Your task to perform on an android device: Add "logitech g pro" to the cart on bestbuy Image 0: 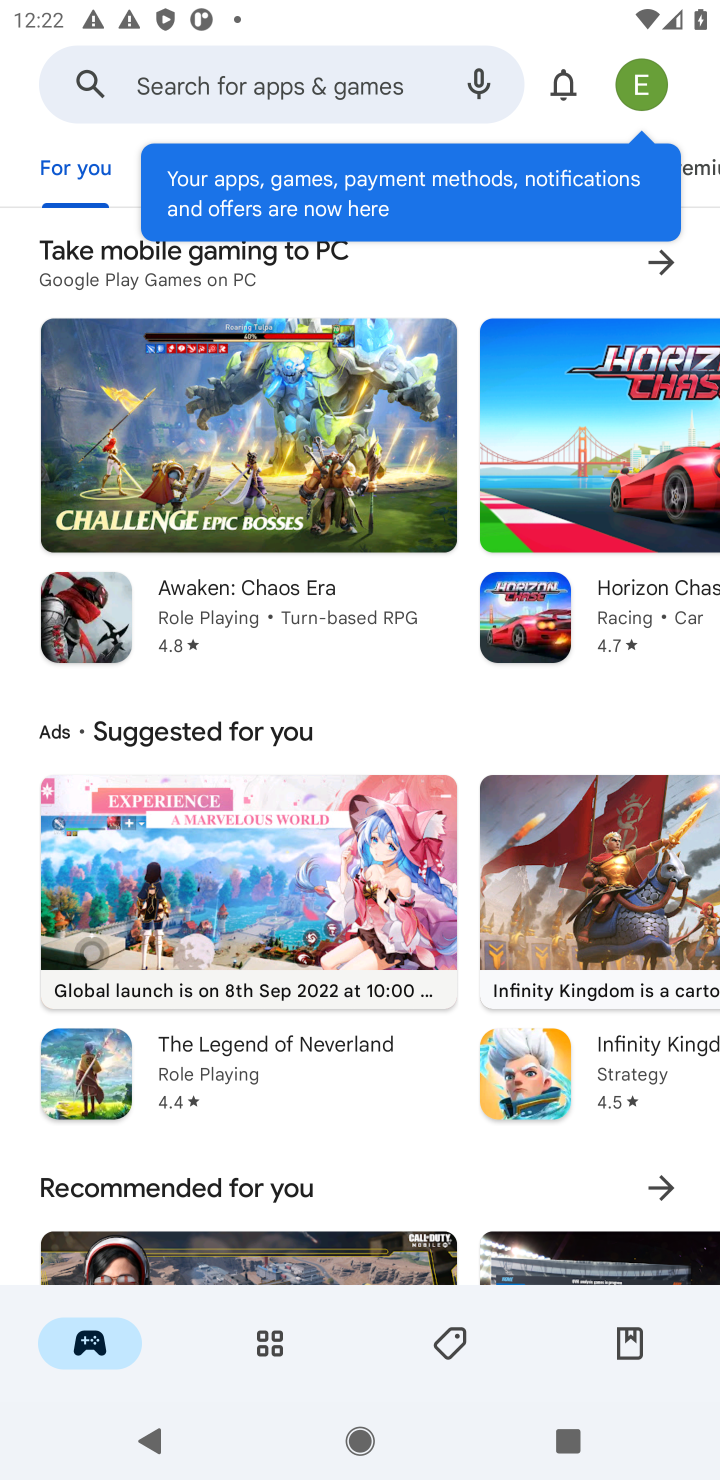
Step 0: press home button
Your task to perform on an android device: Add "logitech g pro" to the cart on bestbuy Image 1: 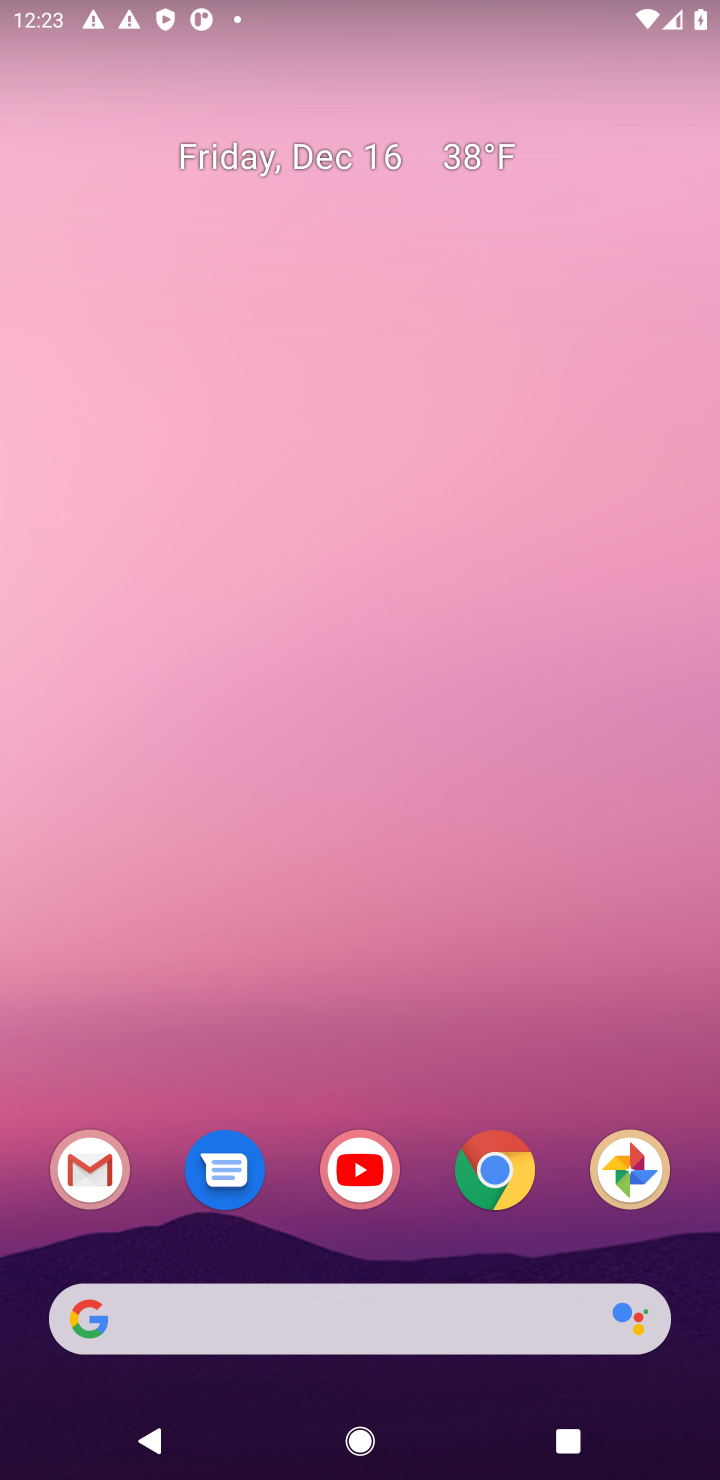
Step 1: click (484, 1163)
Your task to perform on an android device: Add "logitech g pro" to the cart on bestbuy Image 2: 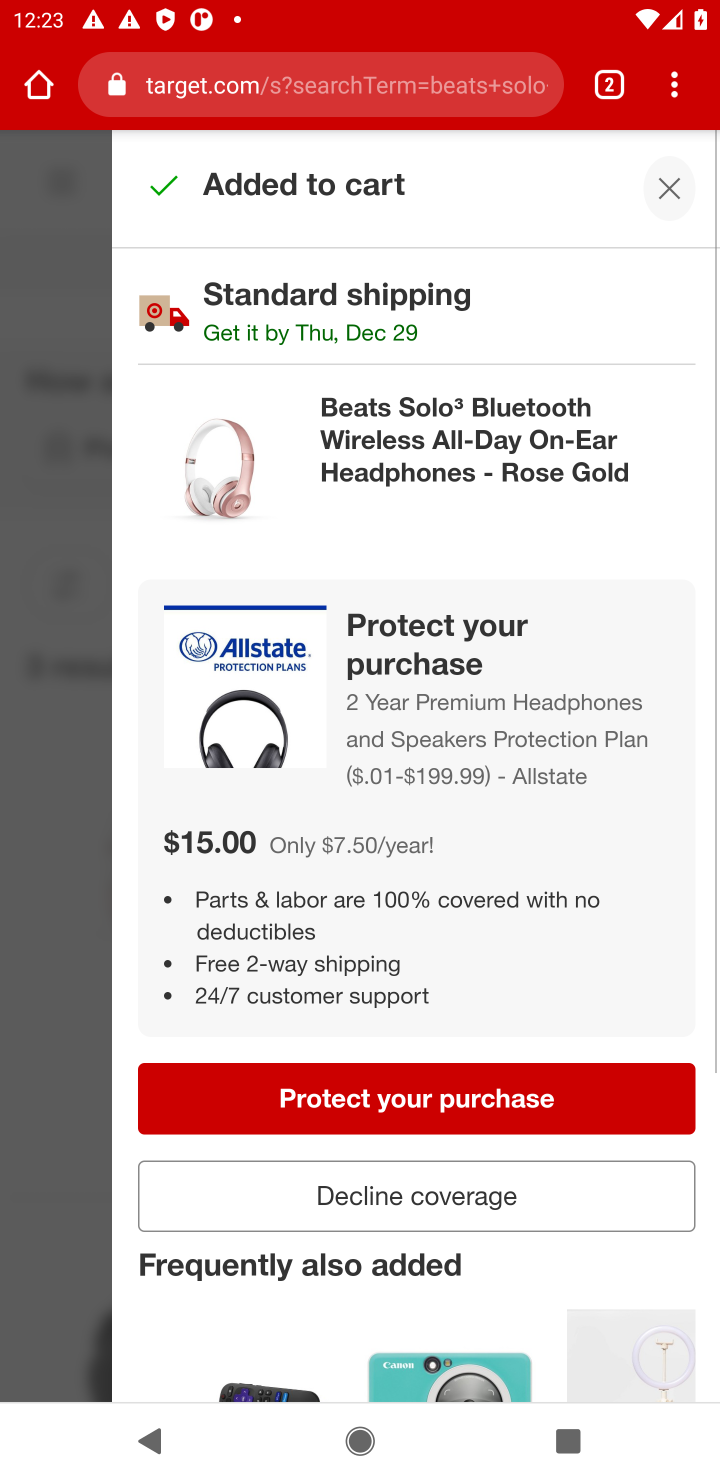
Step 2: click (291, 87)
Your task to perform on an android device: Add "logitech g pro" to the cart on bestbuy Image 3: 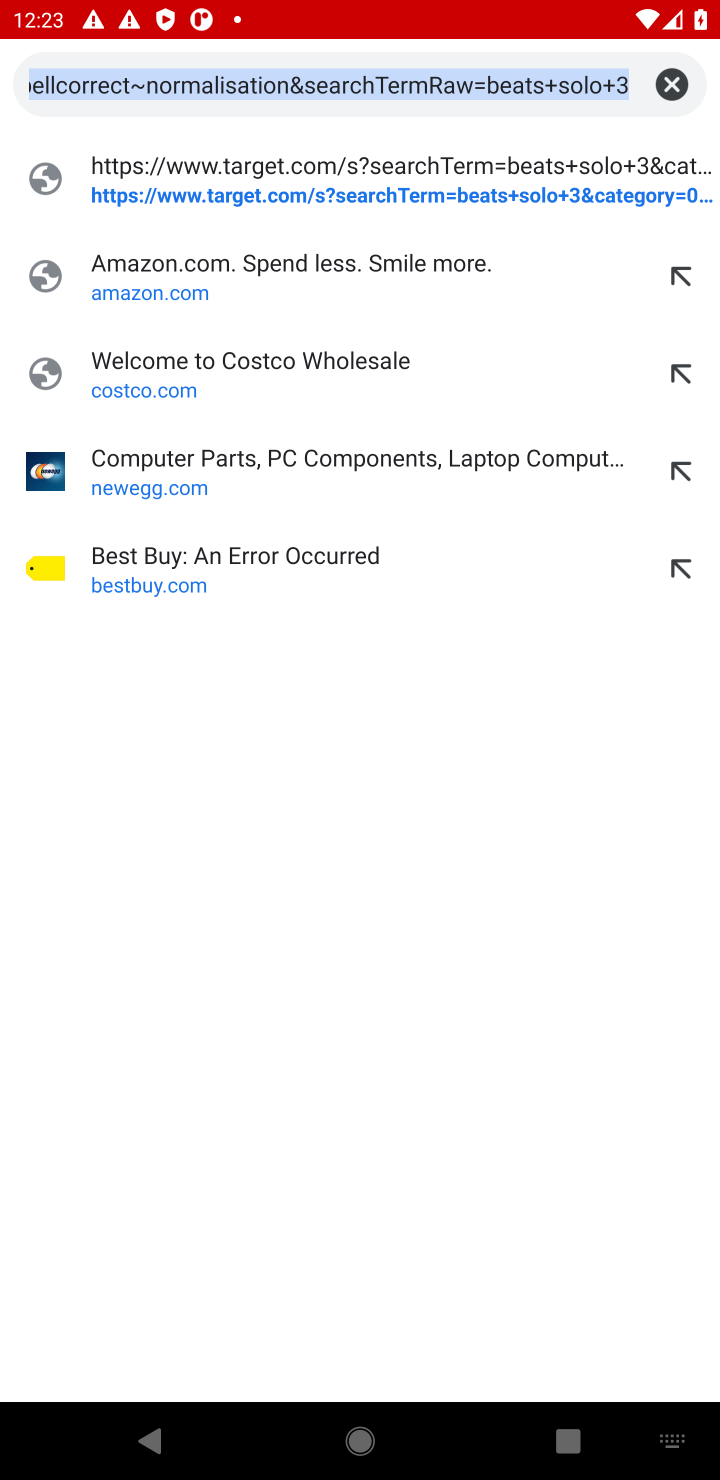
Step 3: click (116, 582)
Your task to perform on an android device: Add "logitech g pro" to the cart on bestbuy Image 4: 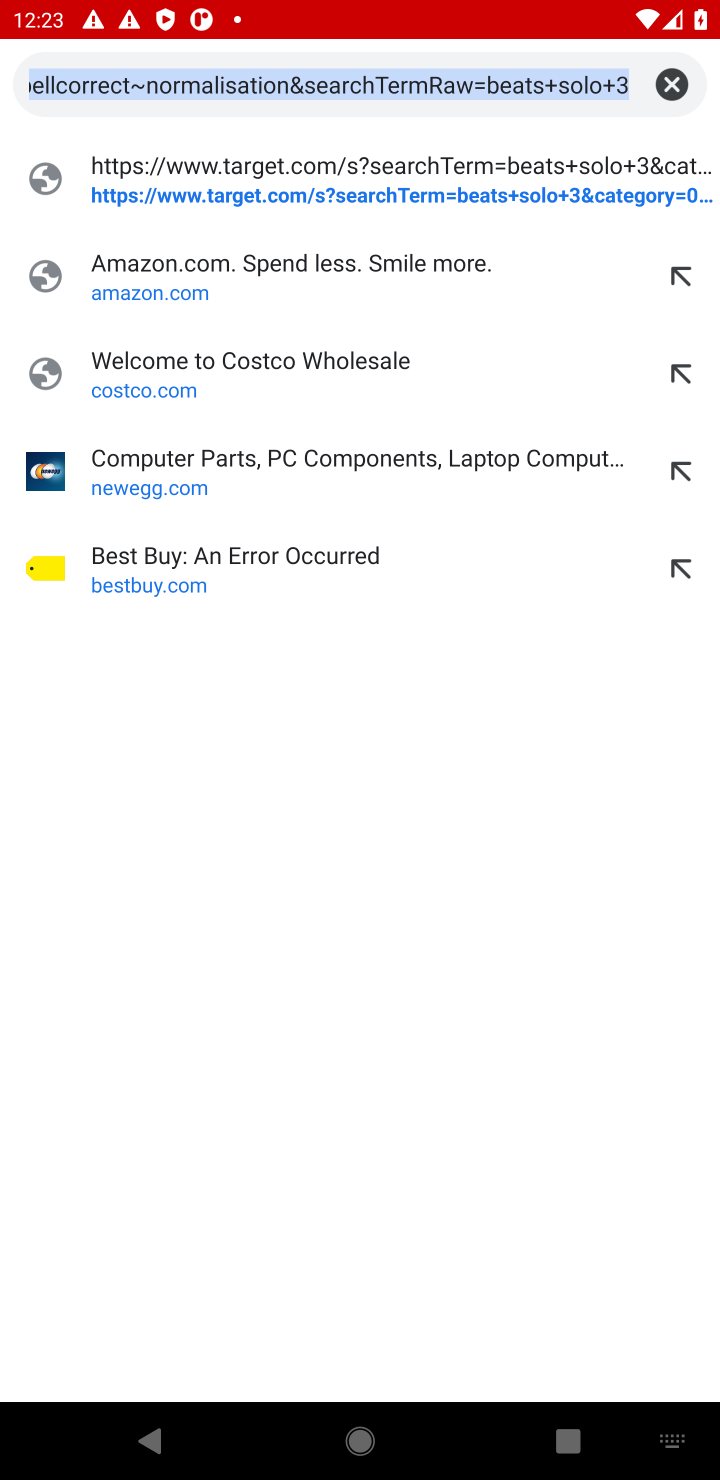
Step 4: click (145, 563)
Your task to perform on an android device: Add "logitech g pro" to the cart on bestbuy Image 5: 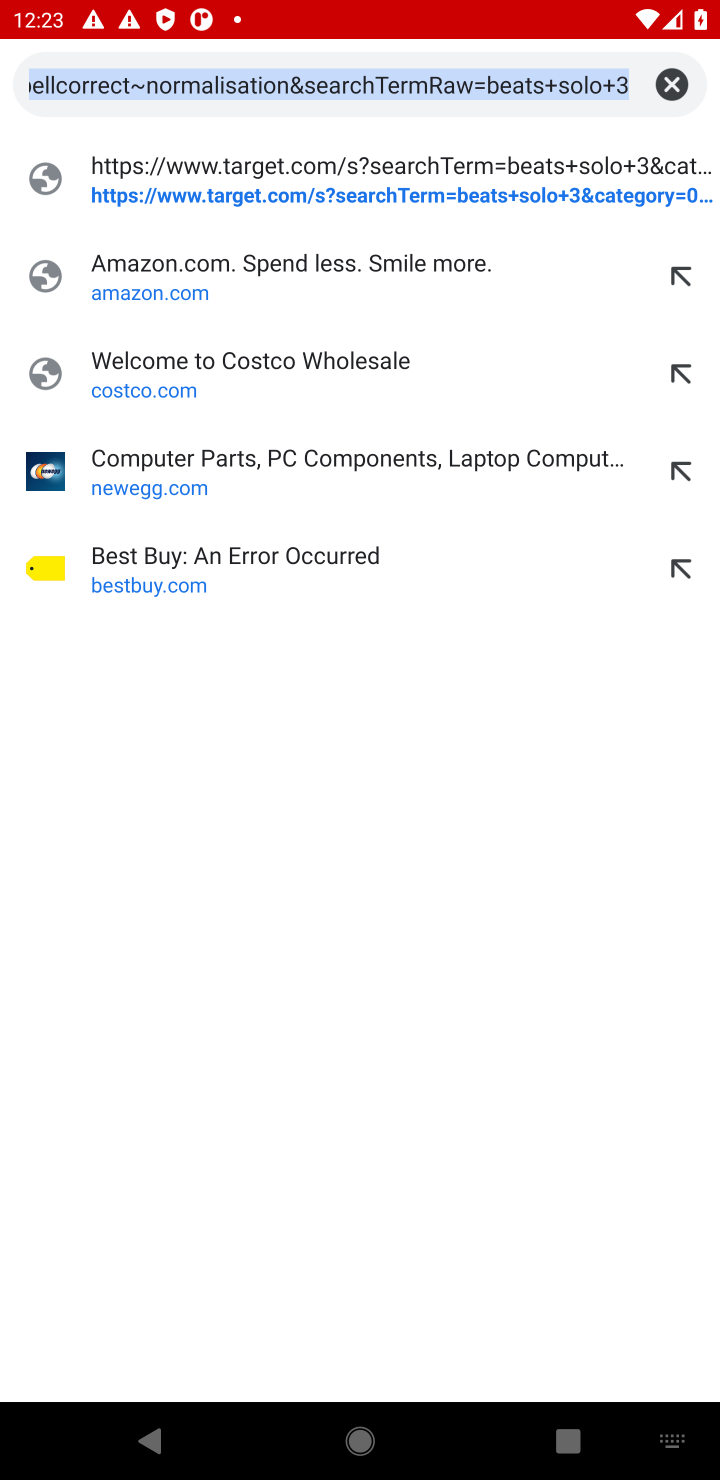
Step 5: click (174, 85)
Your task to perform on an android device: Add "logitech g pro" to the cart on bestbuy Image 6: 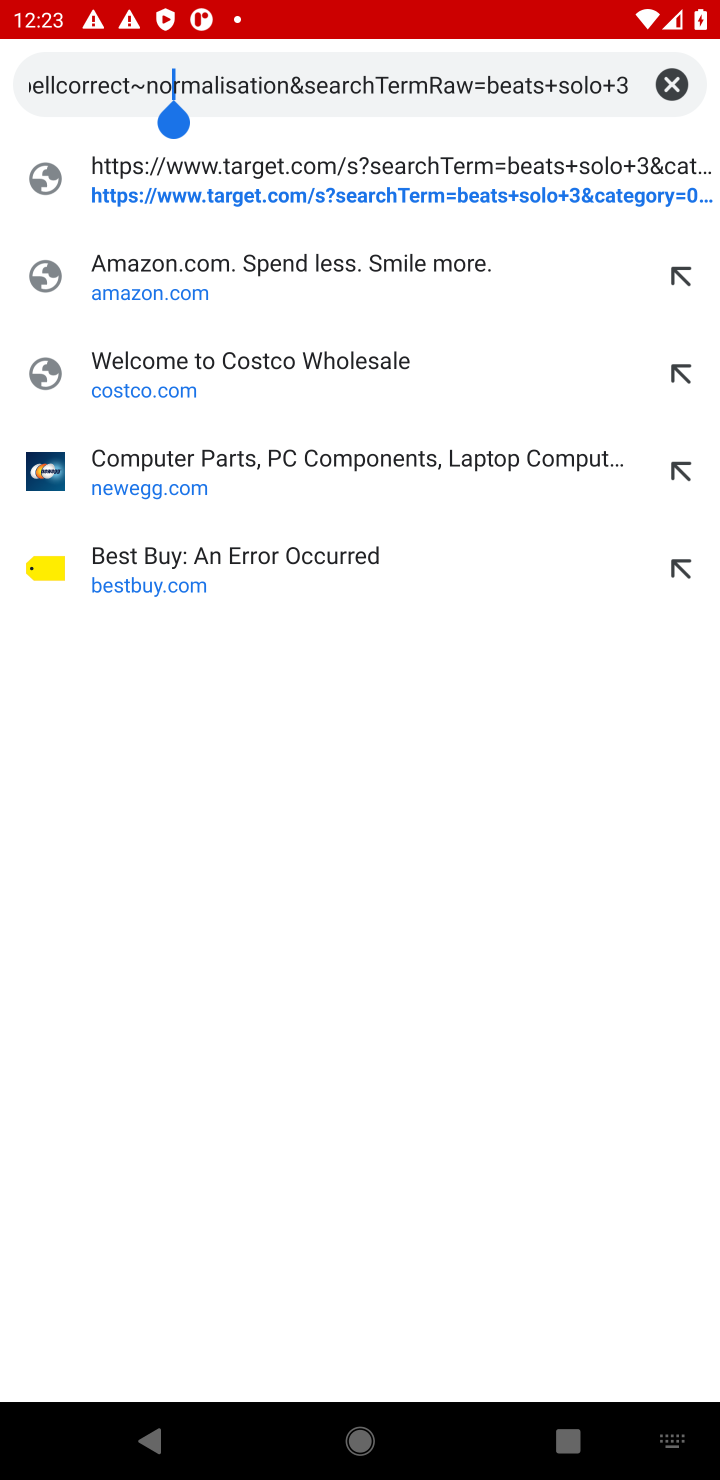
Step 6: click (680, 77)
Your task to perform on an android device: Add "logitech g pro" to the cart on bestbuy Image 7: 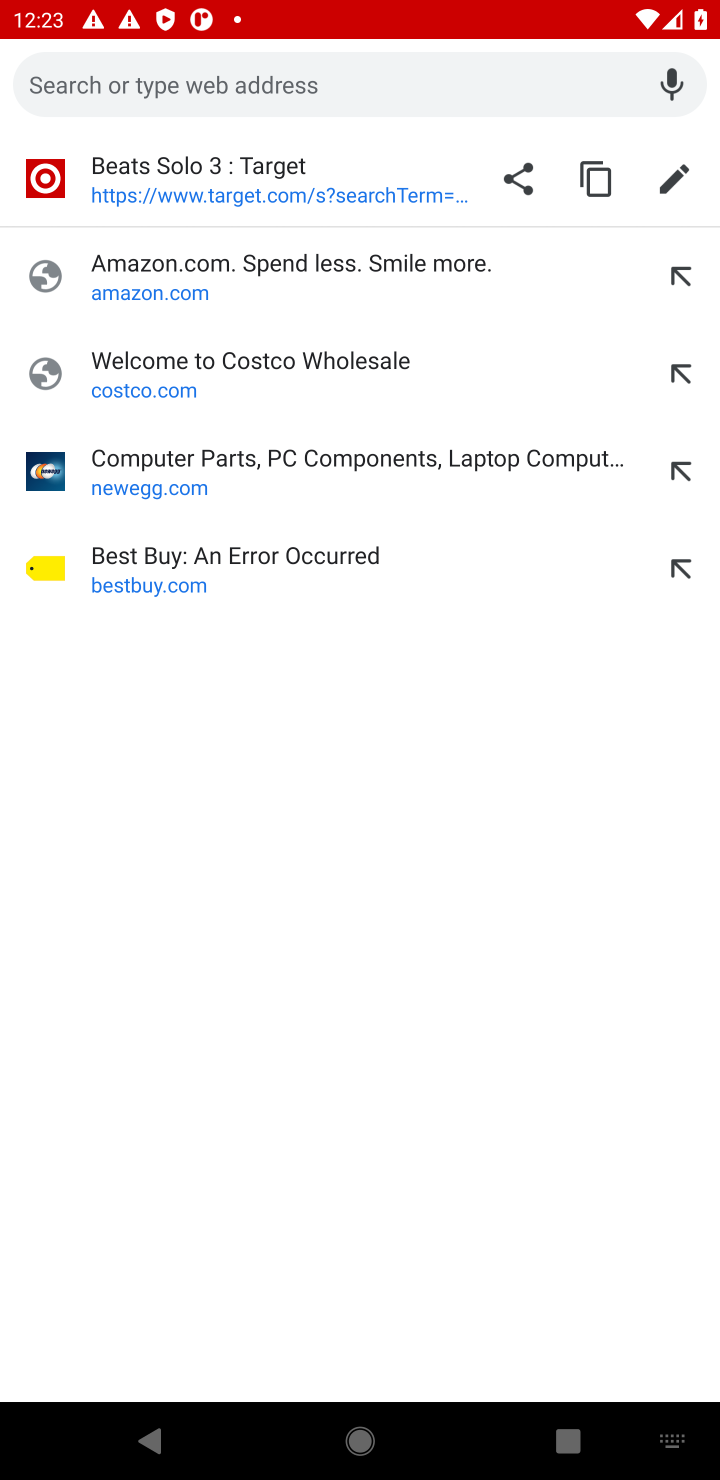
Step 7: type "bestbuy.com"
Your task to perform on an android device: Add "logitech g pro" to the cart on bestbuy Image 8: 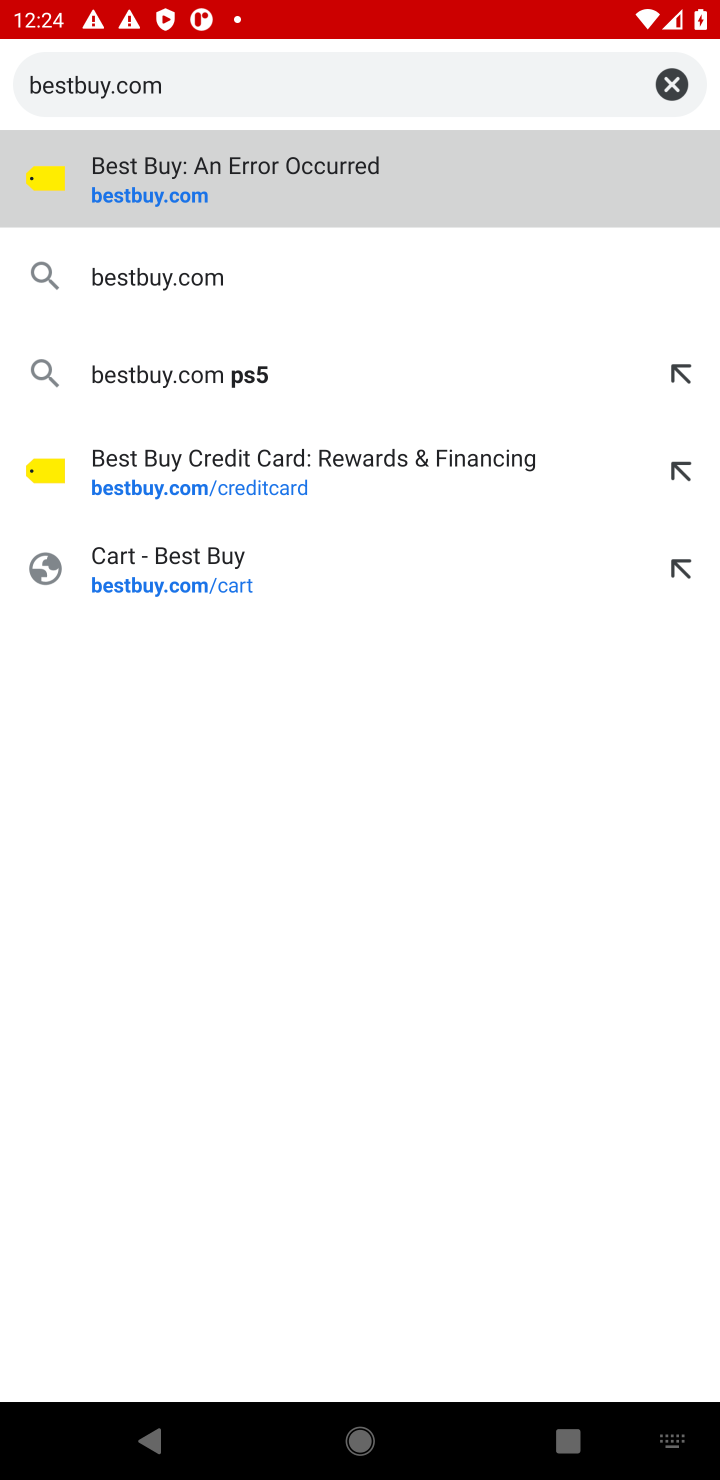
Step 8: click (162, 474)
Your task to perform on an android device: Add "logitech g pro" to the cart on bestbuy Image 9: 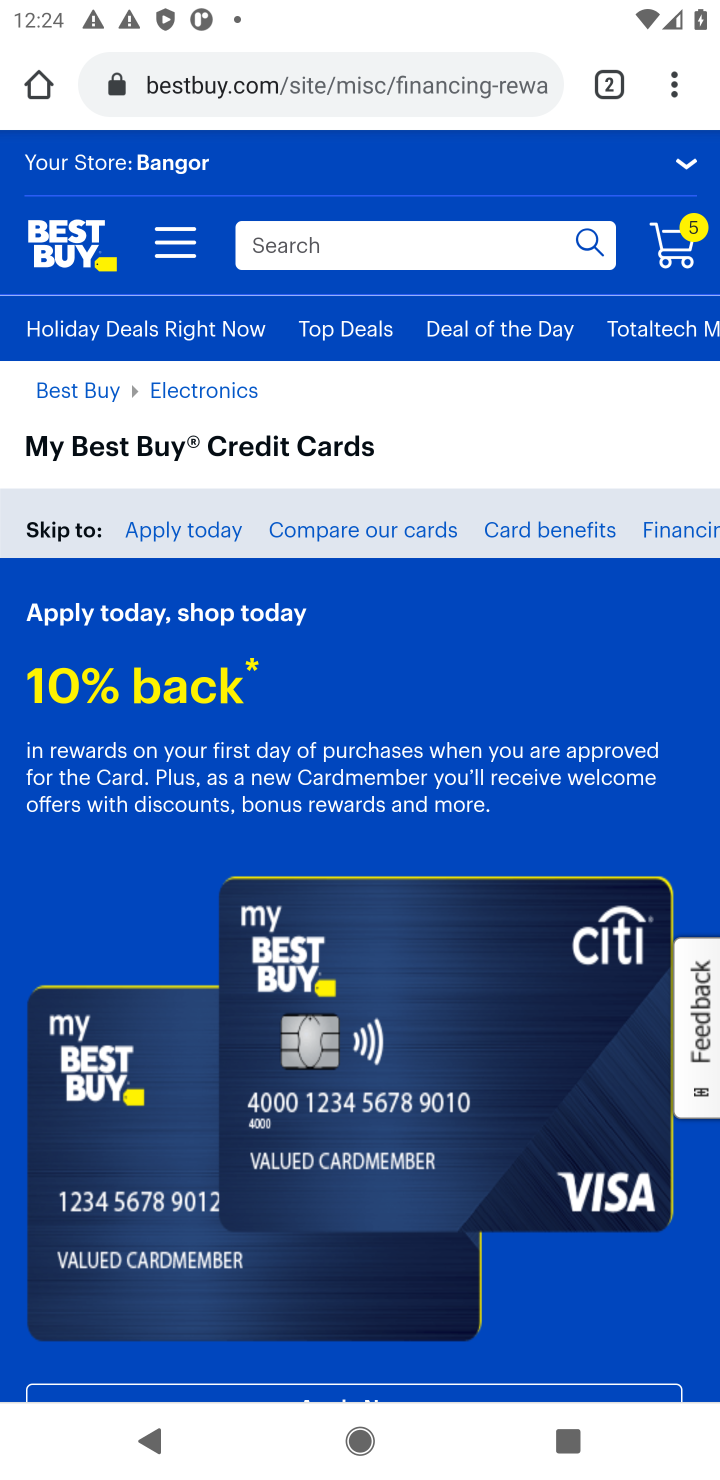
Step 9: click (356, 234)
Your task to perform on an android device: Add "logitech g pro" to the cart on bestbuy Image 10: 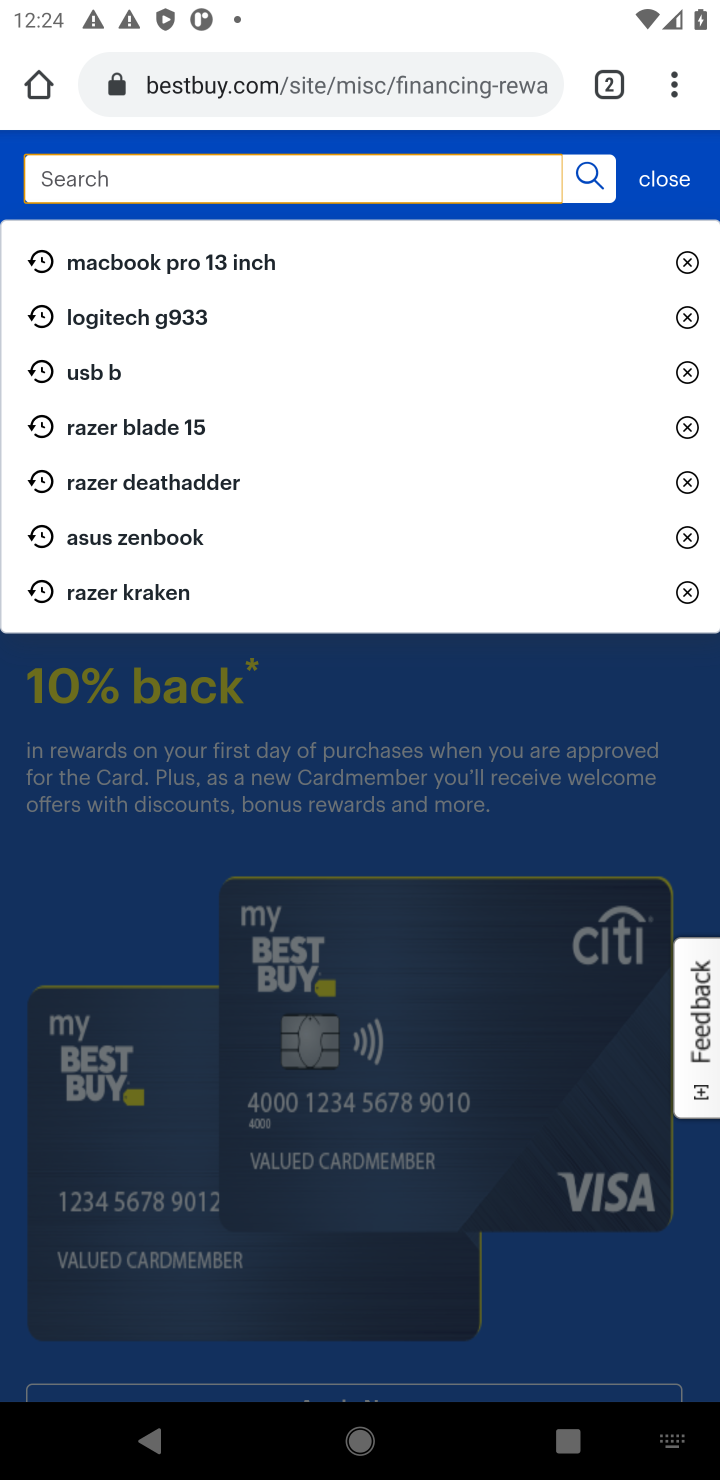
Step 10: type "logitech g pro"
Your task to perform on an android device: Add "logitech g pro" to the cart on bestbuy Image 11: 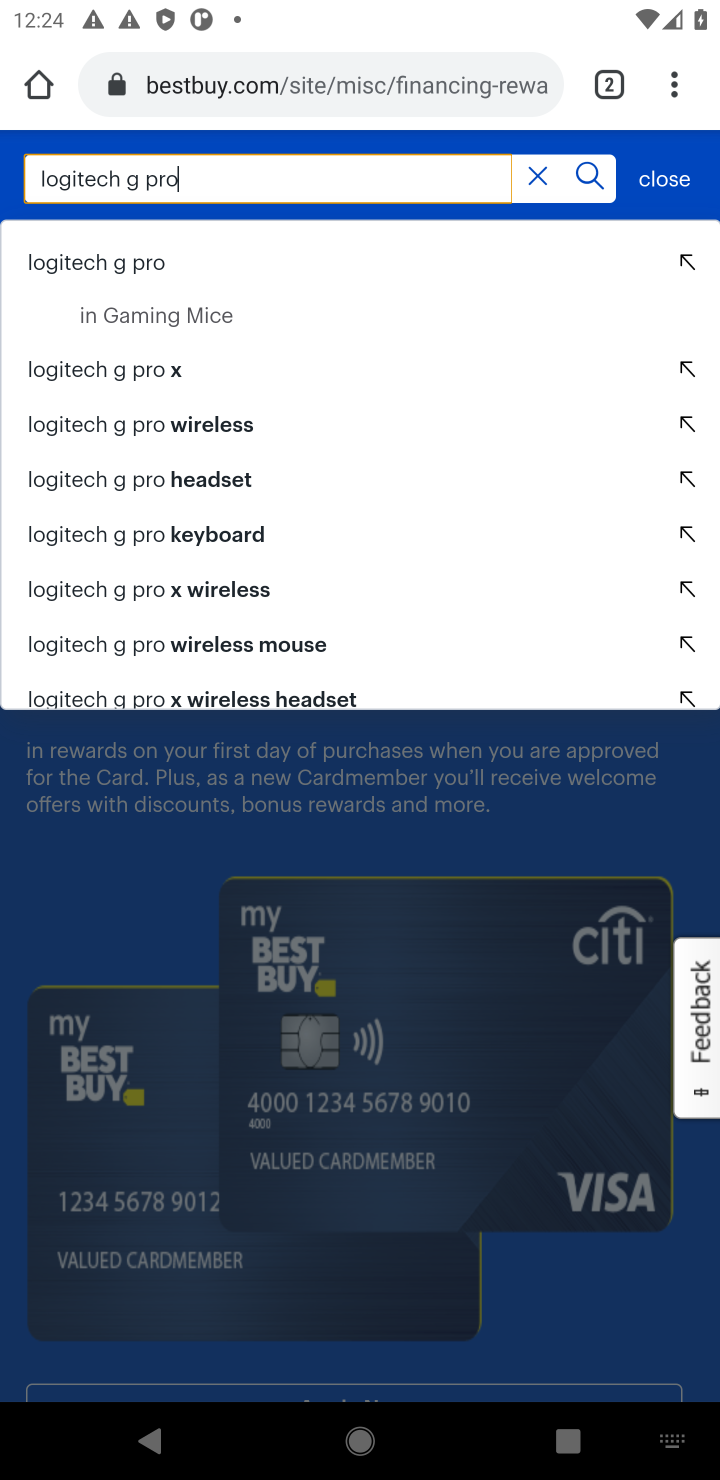
Step 11: click (102, 278)
Your task to perform on an android device: Add "logitech g pro" to the cart on bestbuy Image 12: 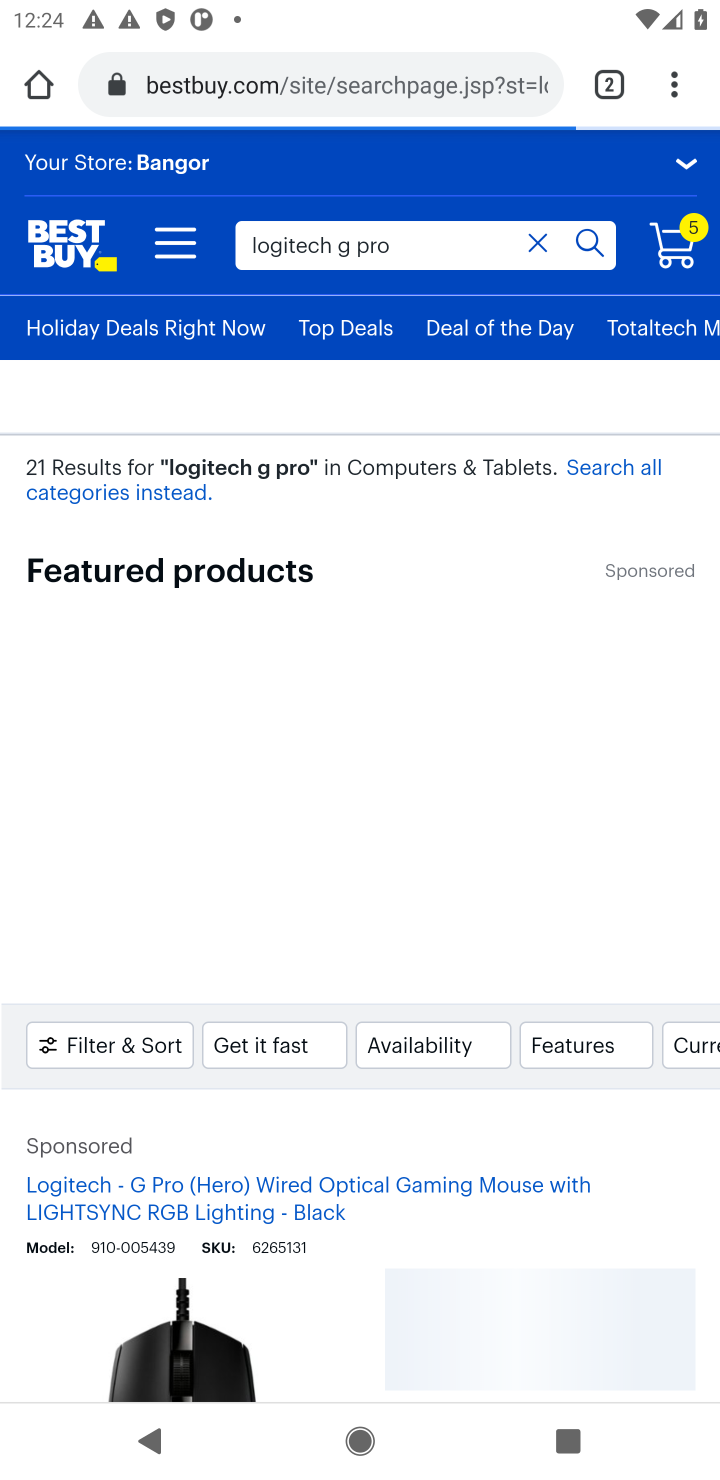
Step 12: drag from (270, 885) to (260, 422)
Your task to perform on an android device: Add "logitech g pro" to the cart on bestbuy Image 13: 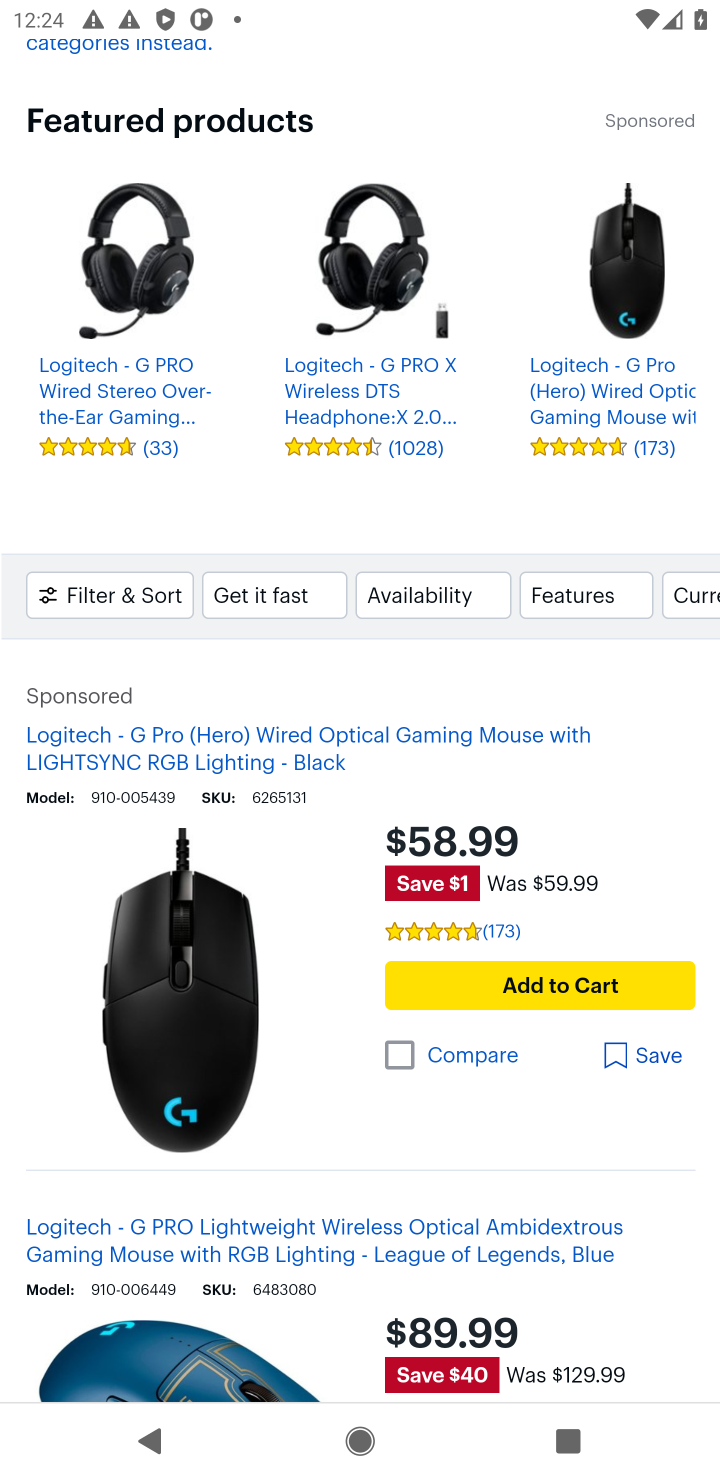
Step 13: click (478, 990)
Your task to perform on an android device: Add "logitech g pro" to the cart on bestbuy Image 14: 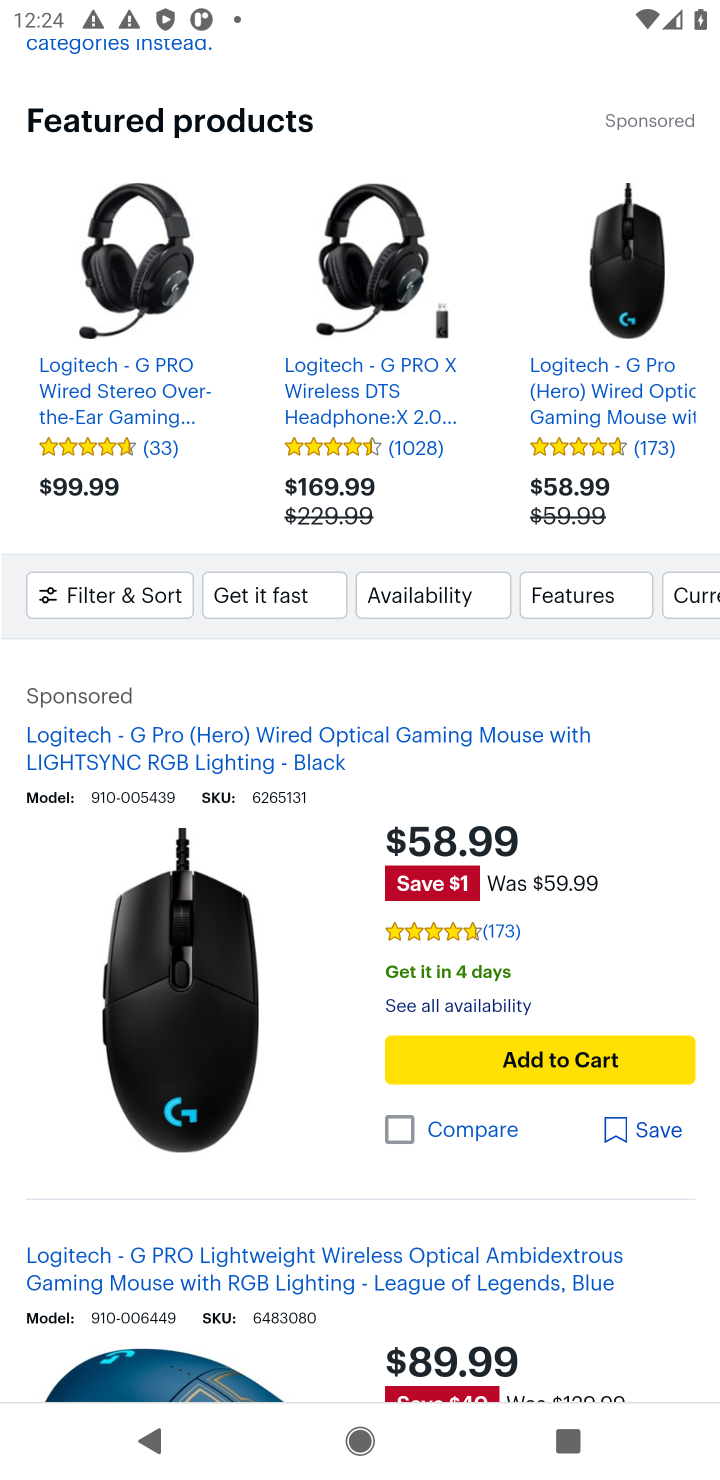
Step 14: click (465, 1045)
Your task to perform on an android device: Add "logitech g pro" to the cart on bestbuy Image 15: 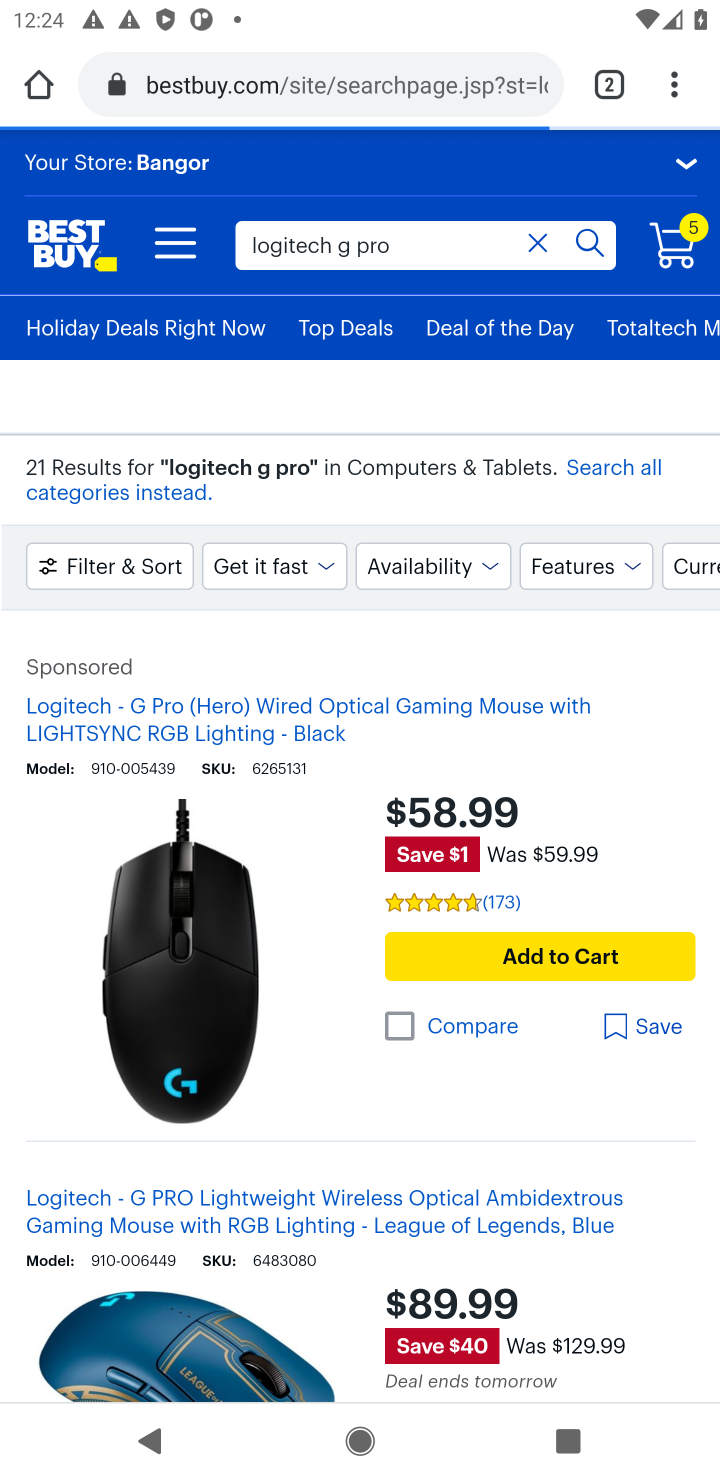
Step 15: click (500, 970)
Your task to perform on an android device: Add "logitech g pro" to the cart on bestbuy Image 16: 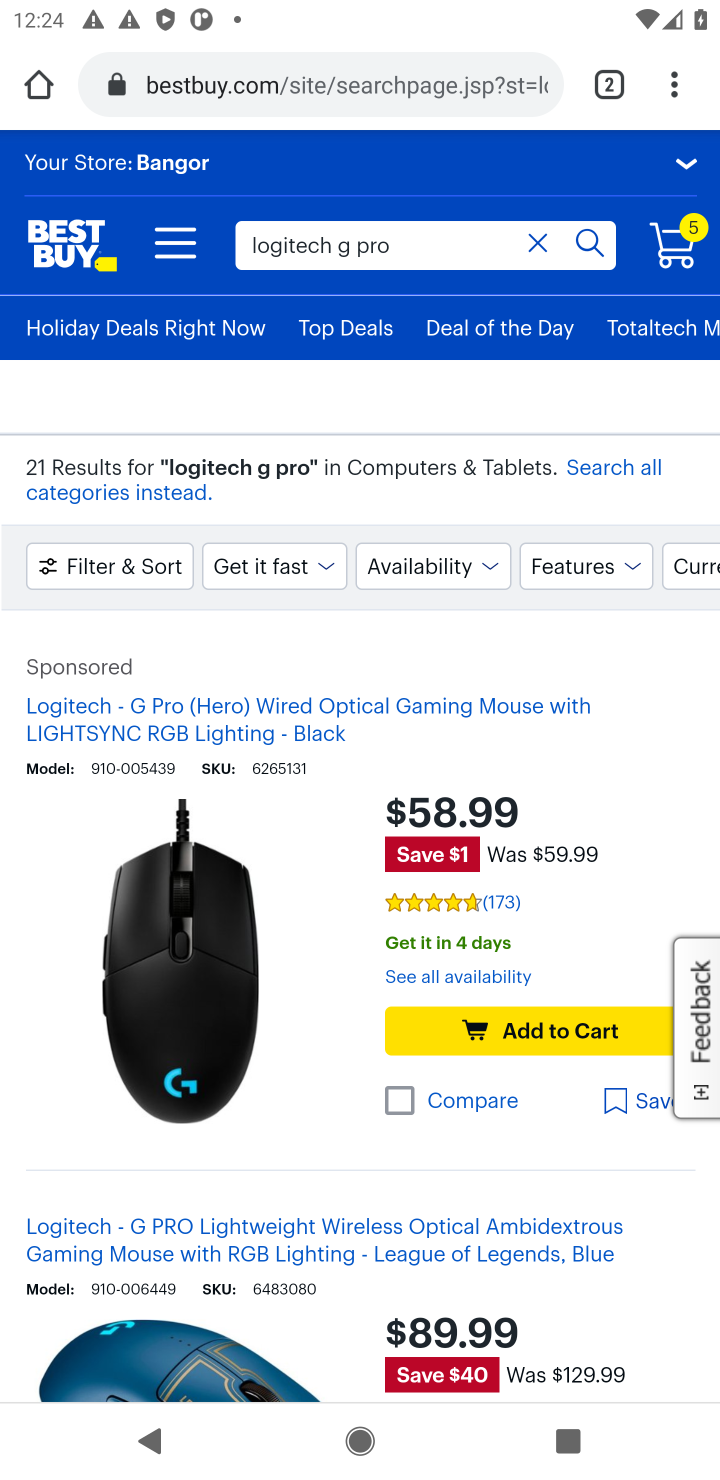
Step 16: click (207, 1040)
Your task to perform on an android device: Add "logitech g pro" to the cart on bestbuy Image 17: 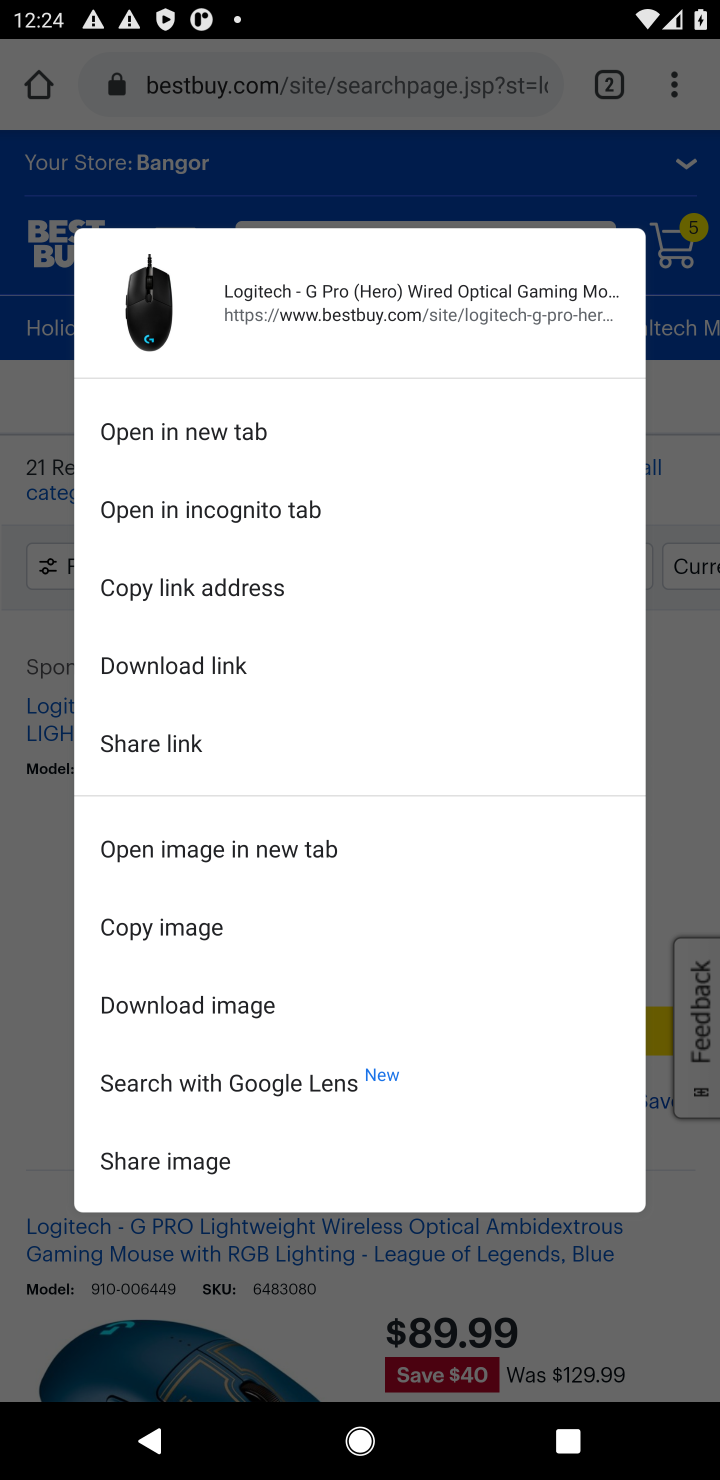
Step 17: click (24, 995)
Your task to perform on an android device: Add "logitech g pro" to the cart on bestbuy Image 18: 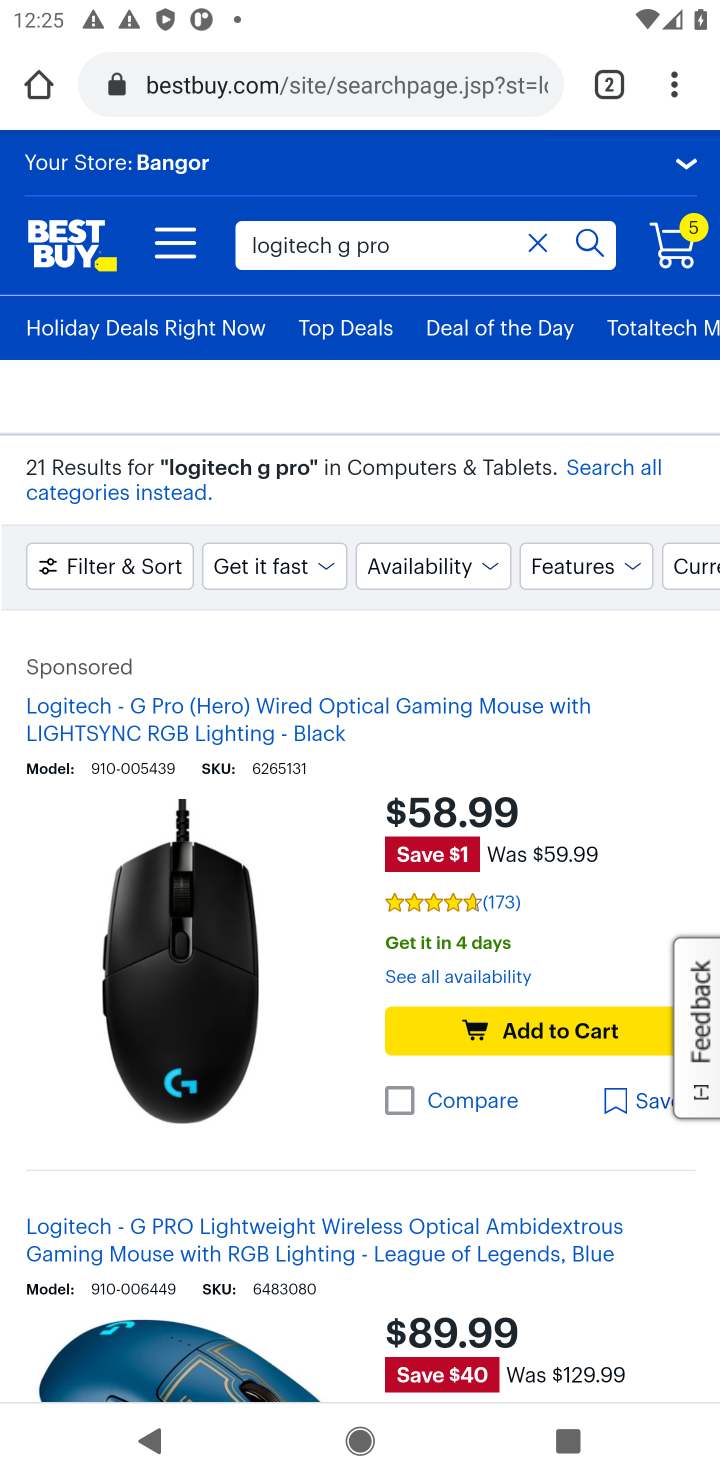
Step 18: click (169, 727)
Your task to perform on an android device: Add "logitech g pro" to the cart on bestbuy Image 19: 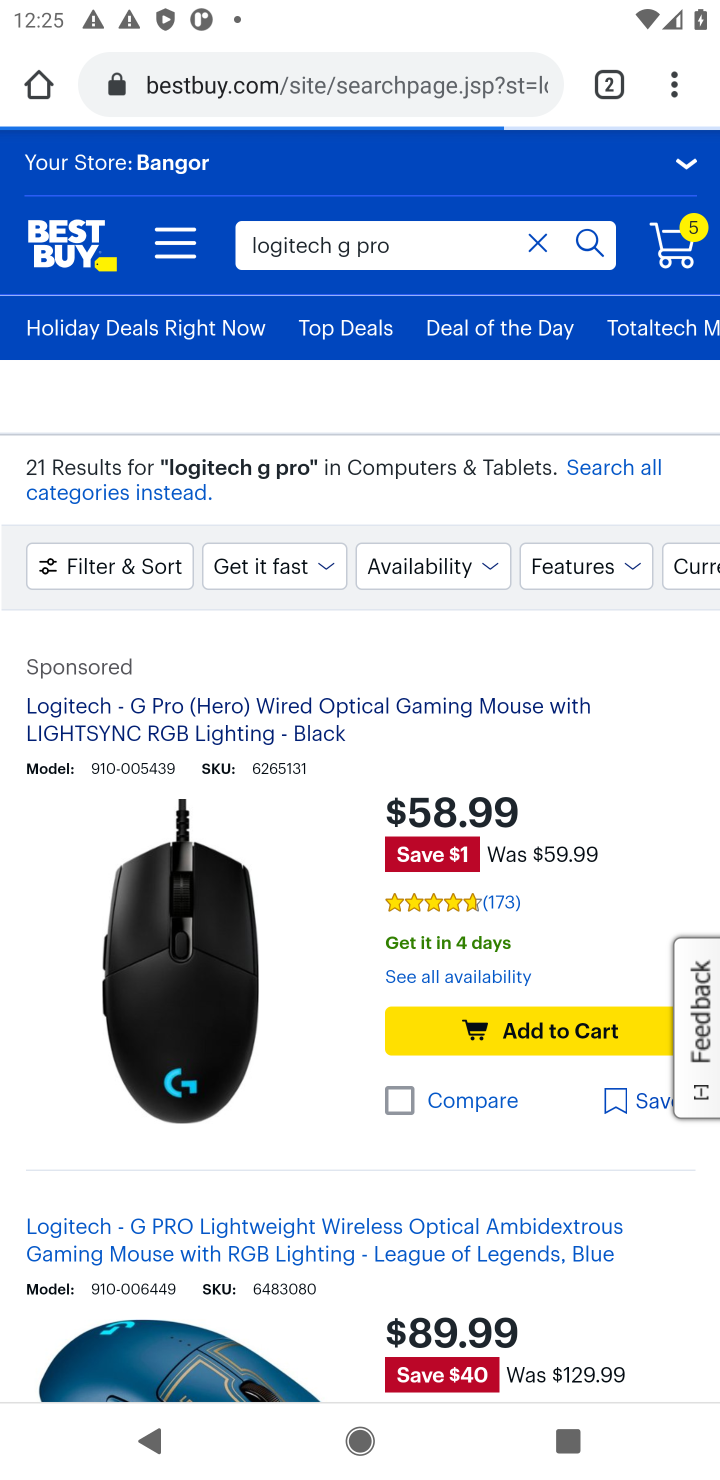
Step 19: click (171, 1010)
Your task to perform on an android device: Add "logitech g pro" to the cart on bestbuy Image 20: 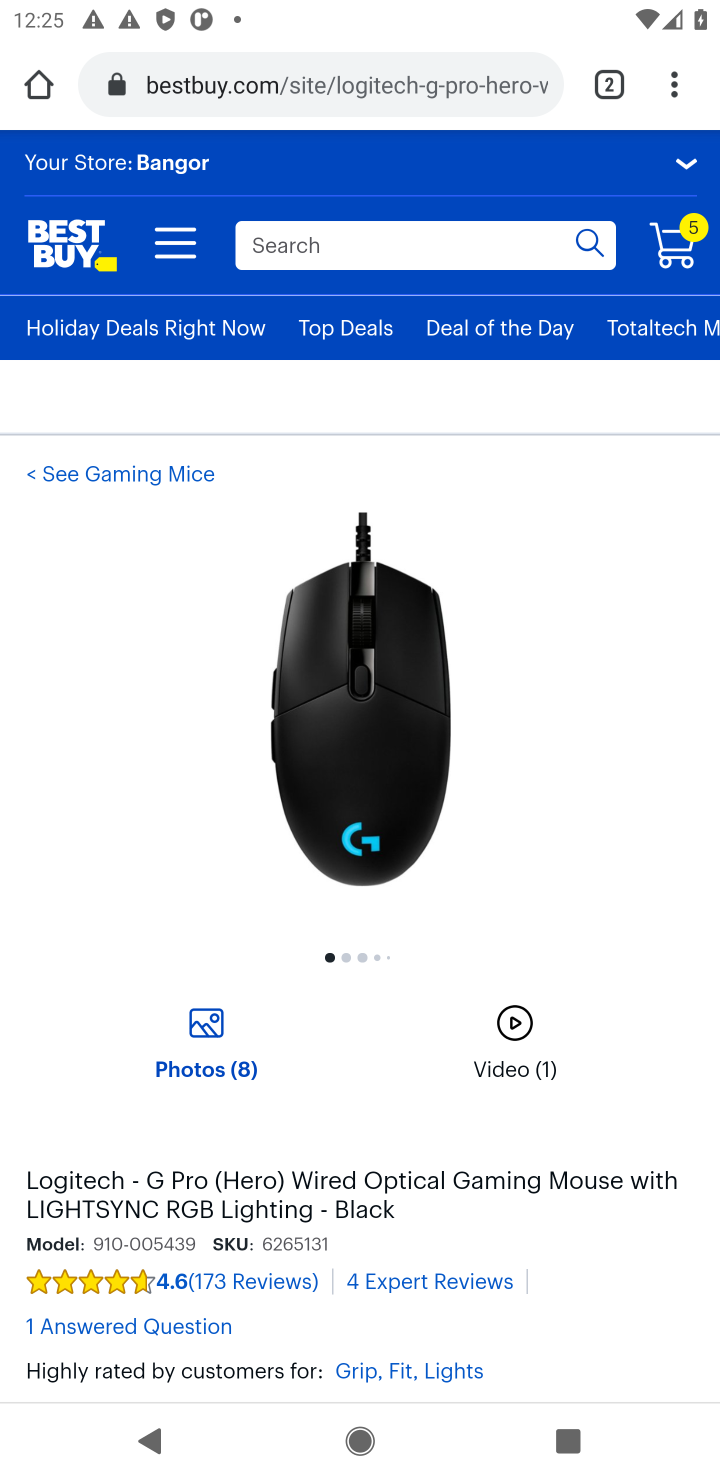
Step 20: drag from (307, 1169) to (312, 560)
Your task to perform on an android device: Add "logitech g pro" to the cart on bestbuy Image 21: 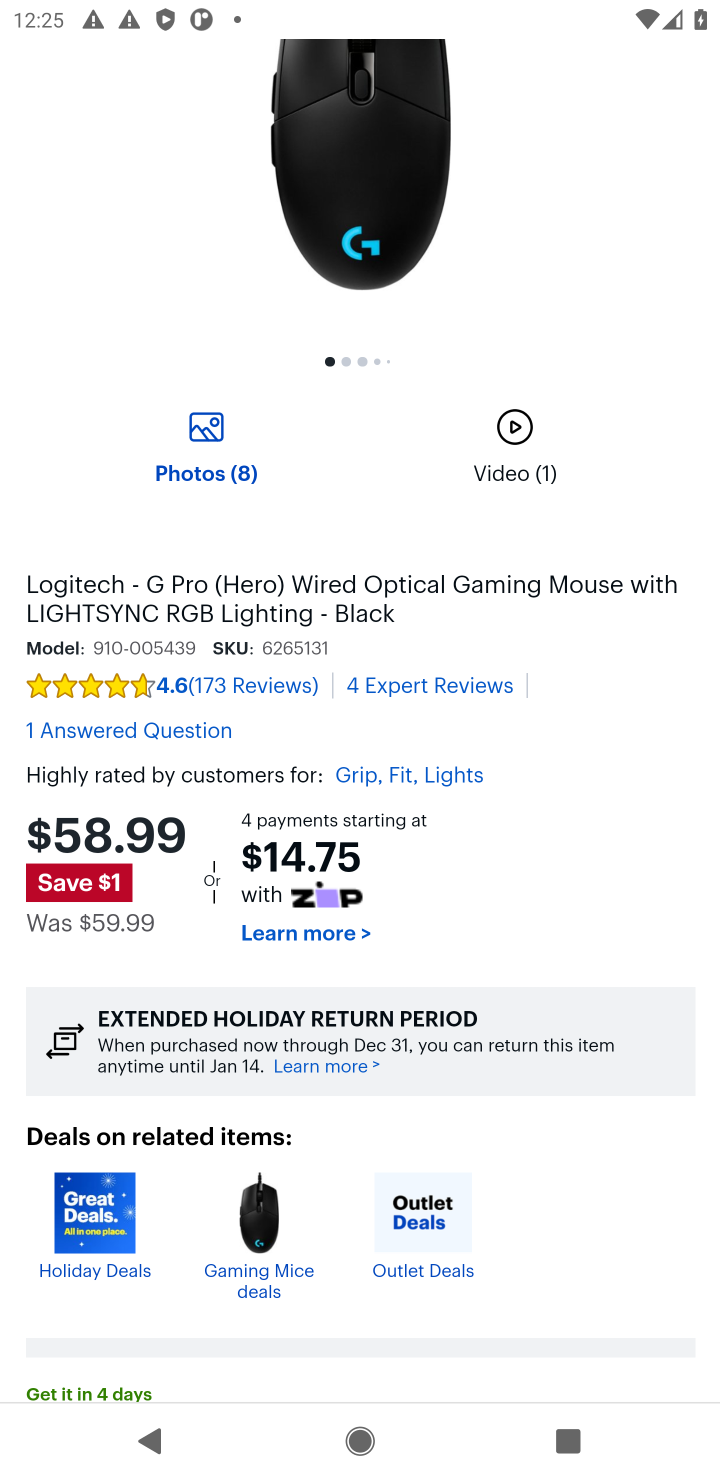
Step 21: drag from (302, 1107) to (337, 473)
Your task to perform on an android device: Add "logitech g pro" to the cart on bestbuy Image 22: 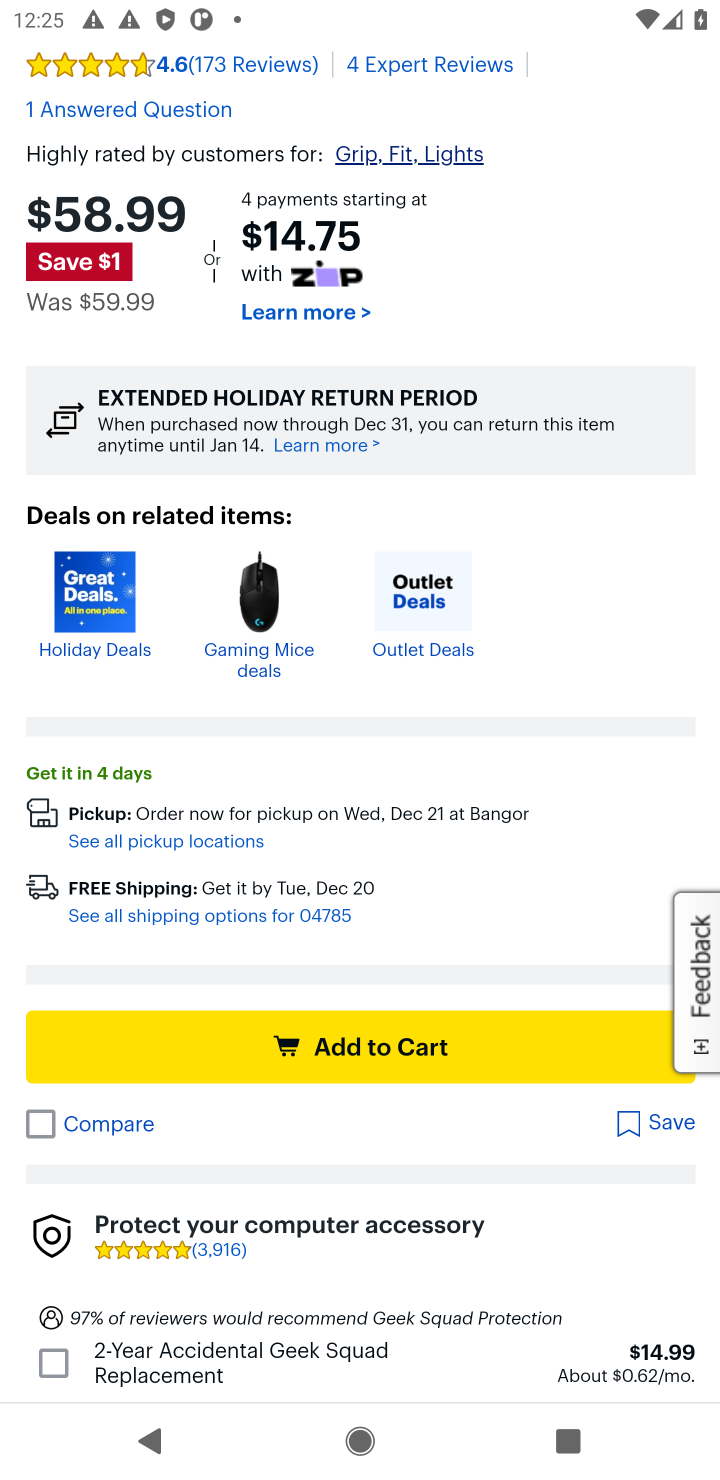
Step 22: click (317, 1043)
Your task to perform on an android device: Add "logitech g pro" to the cart on bestbuy Image 23: 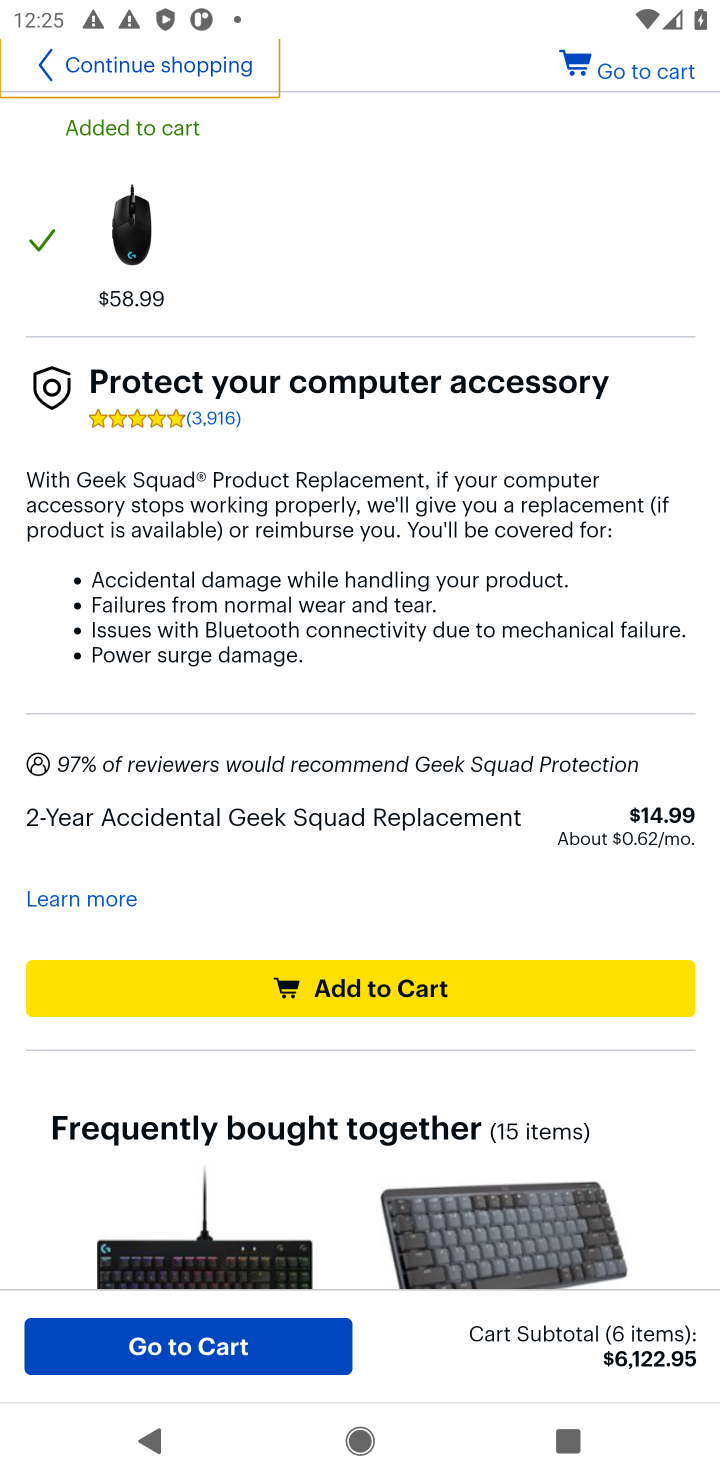
Step 23: task complete